Your task to perform on an android device: turn on location history Image 0: 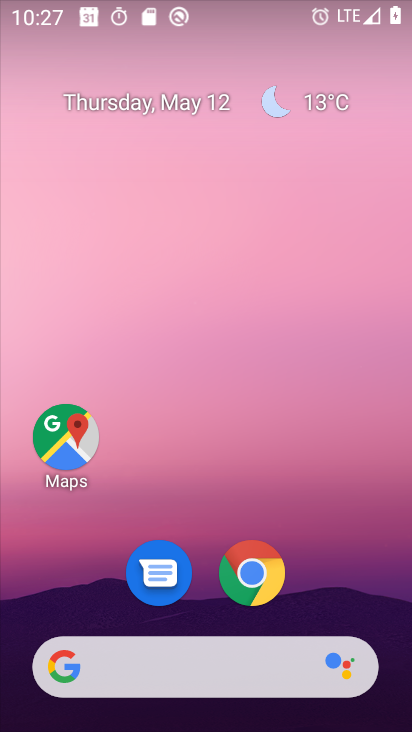
Step 0: drag from (397, 651) to (384, 244)
Your task to perform on an android device: turn on location history Image 1: 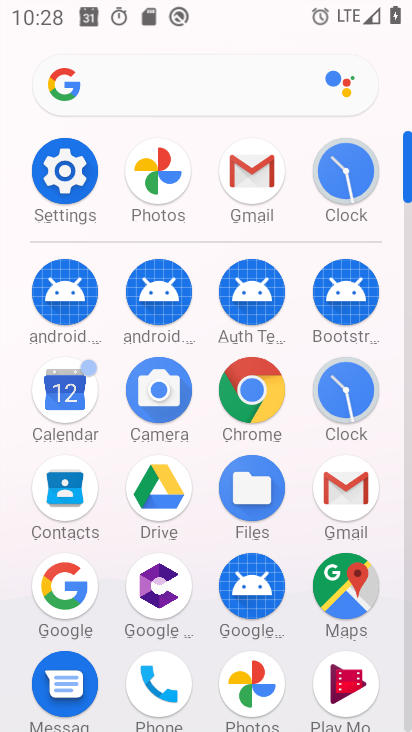
Step 1: click (73, 165)
Your task to perform on an android device: turn on location history Image 2: 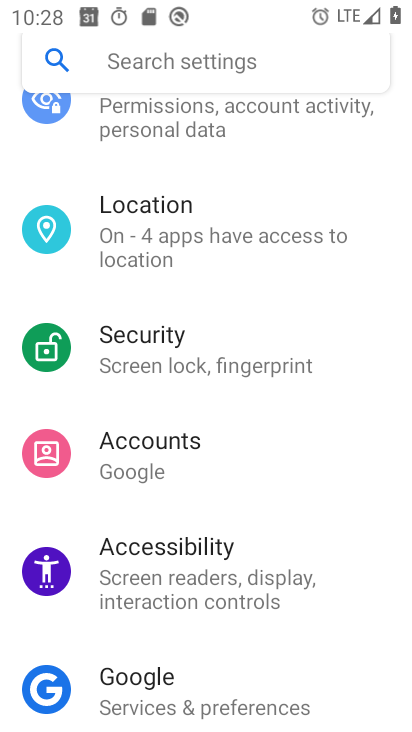
Step 2: click (145, 226)
Your task to perform on an android device: turn on location history Image 3: 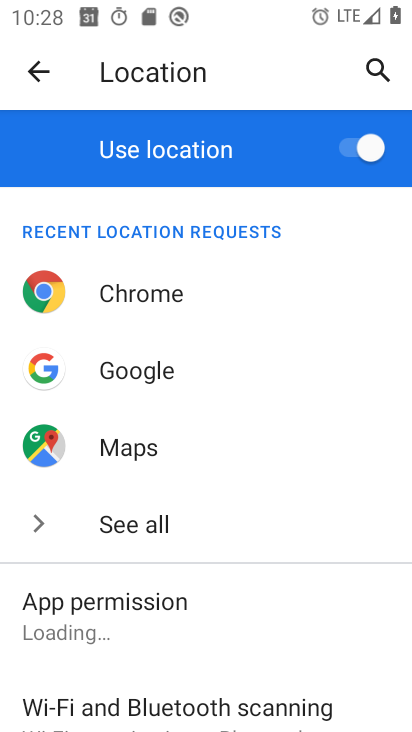
Step 3: drag from (339, 672) to (398, 268)
Your task to perform on an android device: turn on location history Image 4: 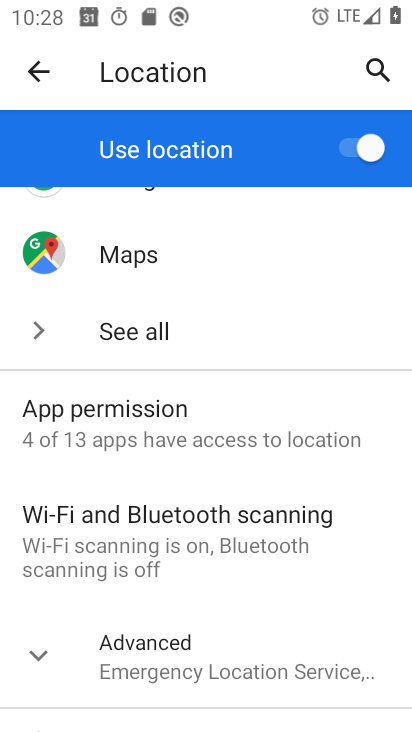
Step 4: click (54, 649)
Your task to perform on an android device: turn on location history Image 5: 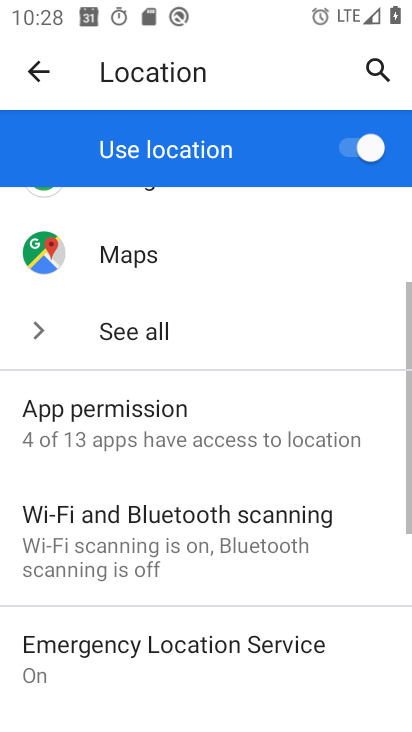
Step 5: drag from (315, 701) to (305, 377)
Your task to perform on an android device: turn on location history Image 6: 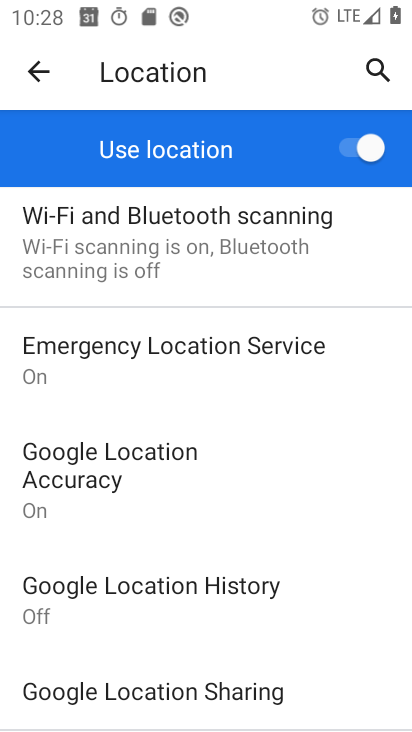
Step 6: click (152, 592)
Your task to perform on an android device: turn on location history Image 7: 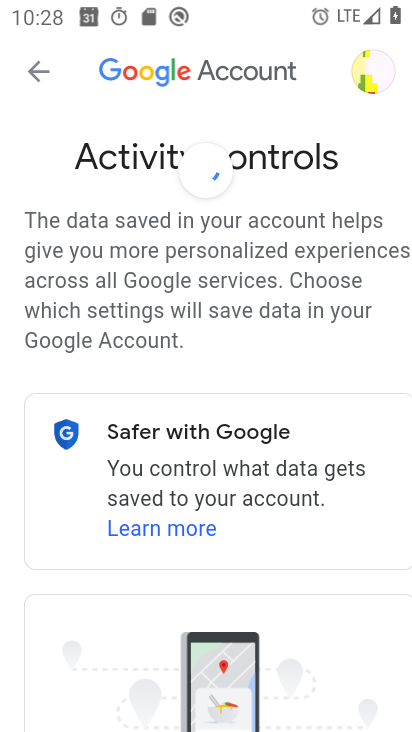
Step 7: drag from (355, 686) to (354, 364)
Your task to perform on an android device: turn on location history Image 8: 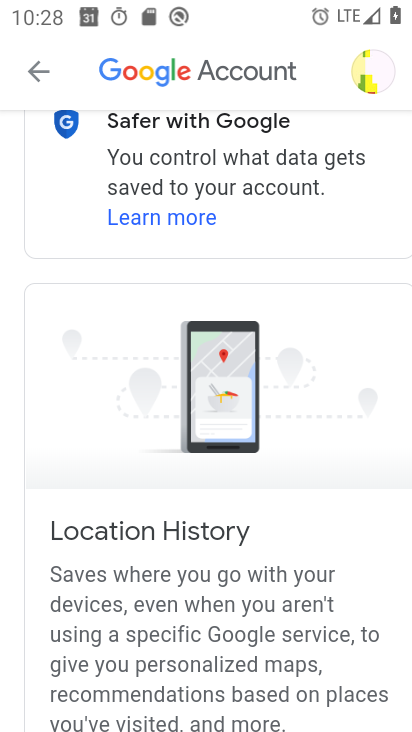
Step 8: drag from (347, 664) to (357, 266)
Your task to perform on an android device: turn on location history Image 9: 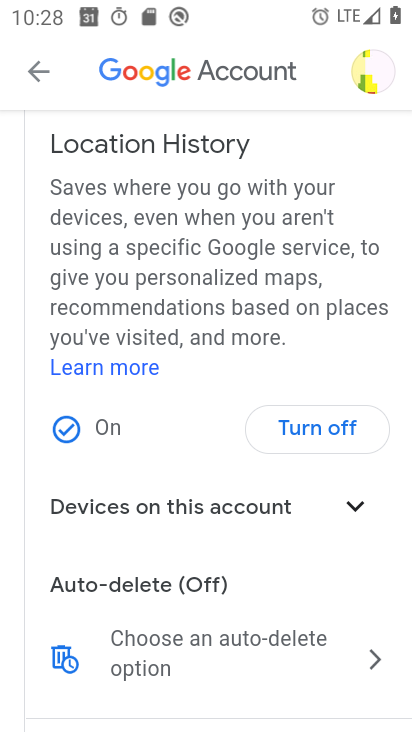
Step 9: click (331, 419)
Your task to perform on an android device: turn on location history Image 10: 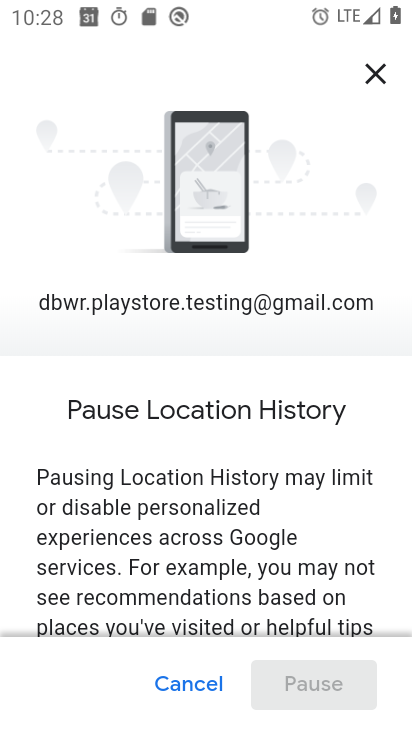
Step 10: drag from (265, 563) to (279, 322)
Your task to perform on an android device: turn on location history Image 11: 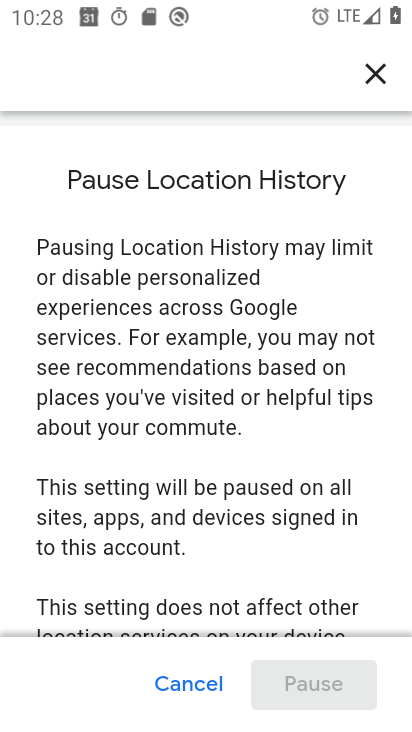
Step 11: drag from (272, 624) to (299, 320)
Your task to perform on an android device: turn on location history Image 12: 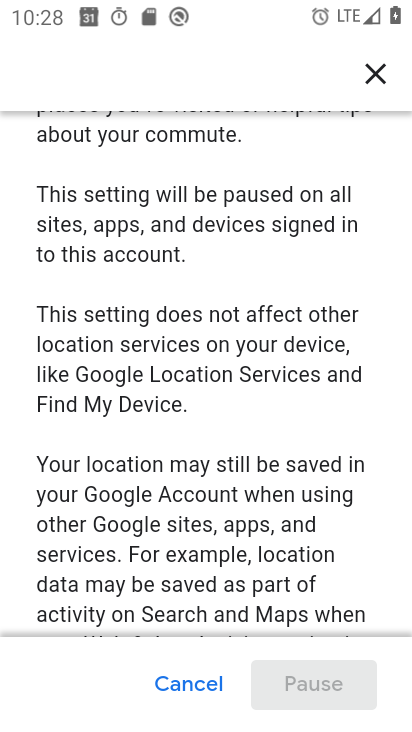
Step 12: drag from (221, 600) to (274, 280)
Your task to perform on an android device: turn on location history Image 13: 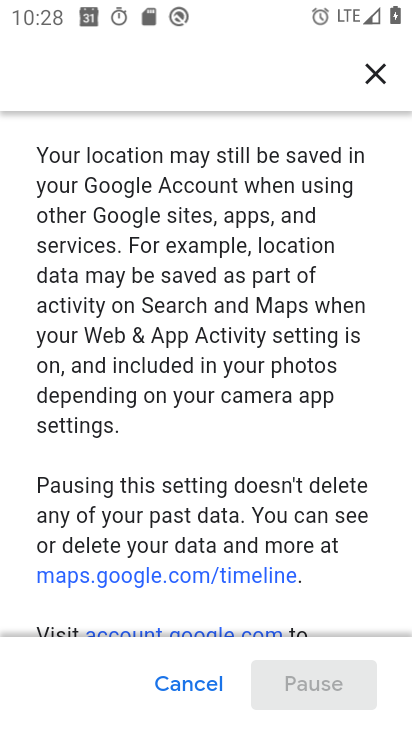
Step 13: drag from (270, 557) to (279, 285)
Your task to perform on an android device: turn on location history Image 14: 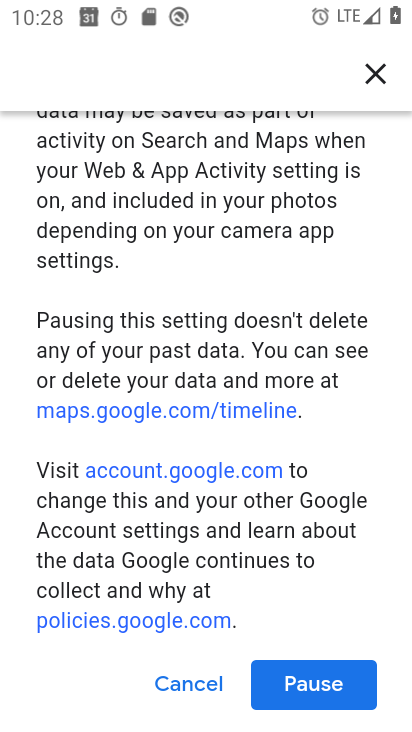
Step 14: click (285, 674)
Your task to perform on an android device: turn on location history Image 15: 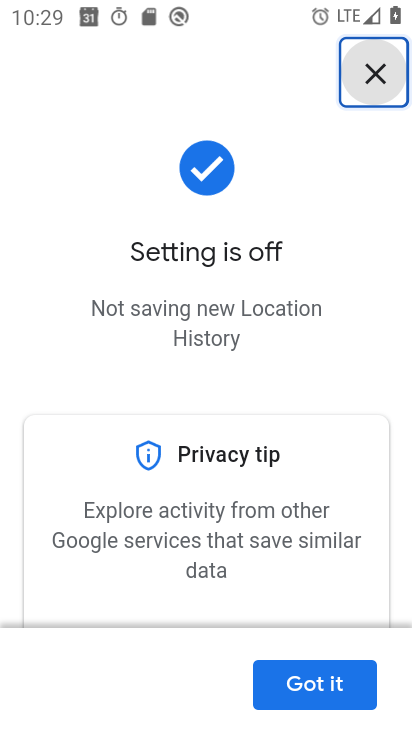
Step 15: click (315, 690)
Your task to perform on an android device: turn on location history Image 16: 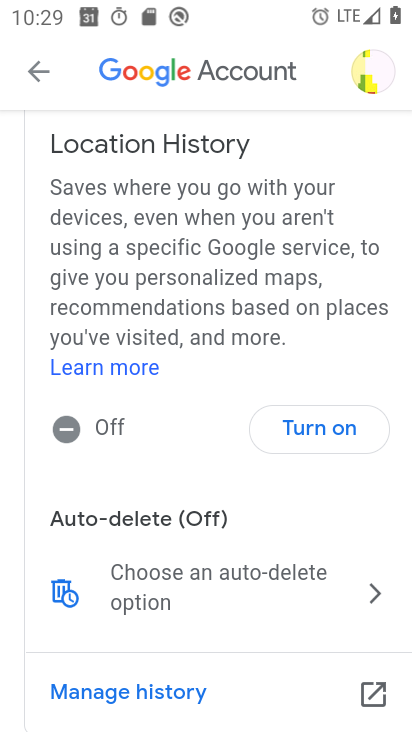
Step 16: task complete